Your task to perform on an android device: What's on my calendar today? Image 0: 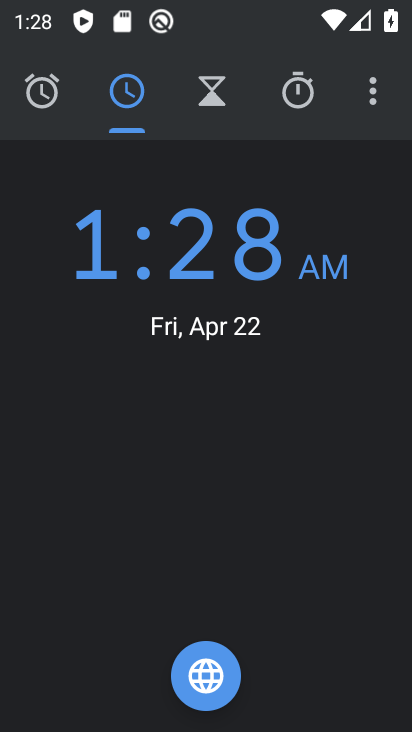
Step 0: press home button
Your task to perform on an android device: What's on my calendar today? Image 1: 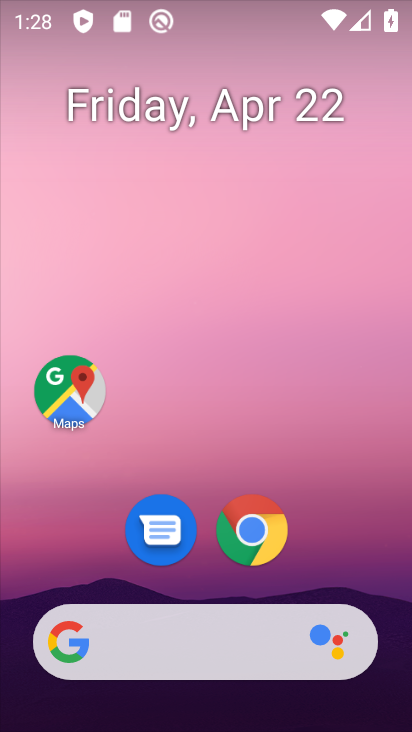
Step 1: drag from (199, 629) to (200, 127)
Your task to perform on an android device: What's on my calendar today? Image 2: 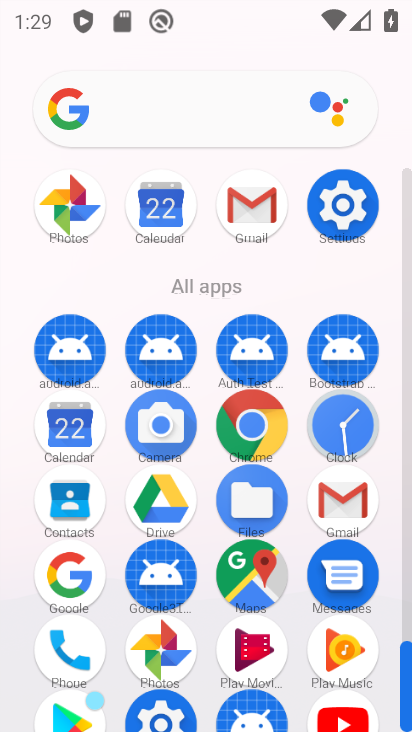
Step 2: click (67, 428)
Your task to perform on an android device: What's on my calendar today? Image 3: 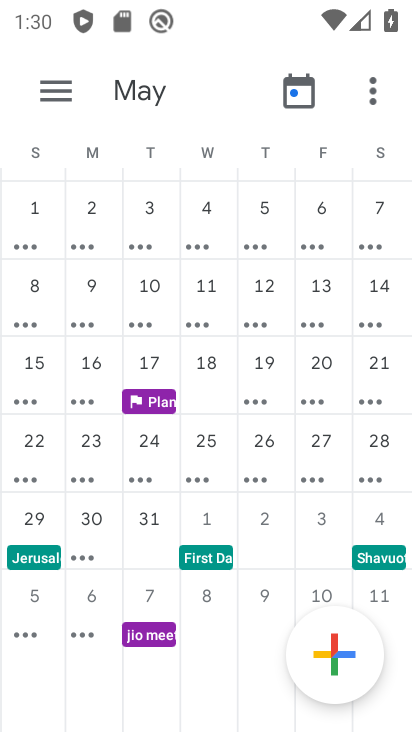
Step 3: drag from (21, 417) to (299, 562)
Your task to perform on an android device: What's on my calendar today? Image 4: 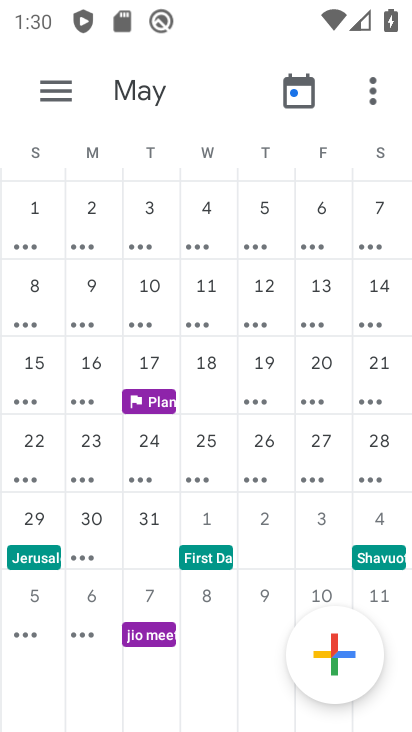
Step 4: click (56, 86)
Your task to perform on an android device: What's on my calendar today? Image 5: 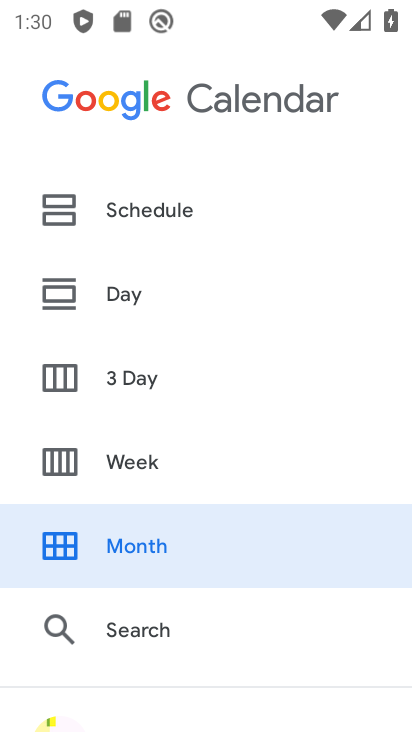
Step 5: click (146, 215)
Your task to perform on an android device: What's on my calendar today? Image 6: 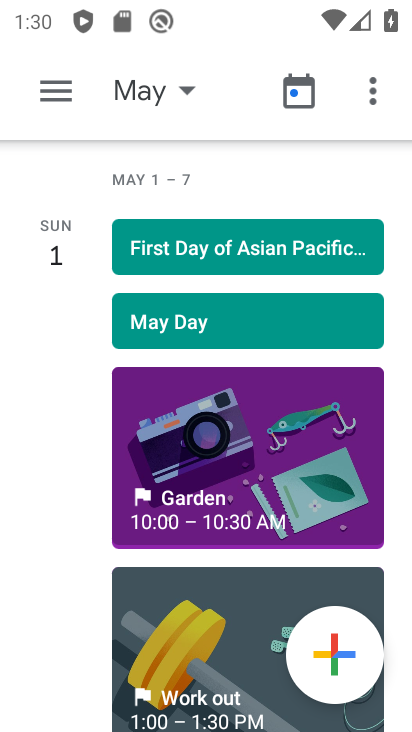
Step 6: click (121, 98)
Your task to perform on an android device: What's on my calendar today? Image 7: 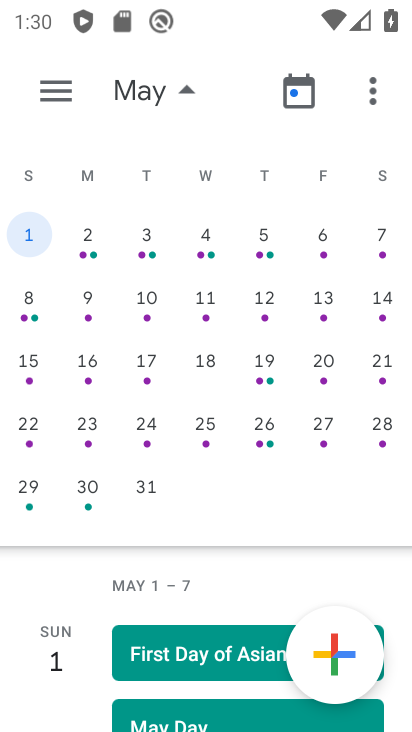
Step 7: drag from (41, 316) to (410, 330)
Your task to perform on an android device: What's on my calendar today? Image 8: 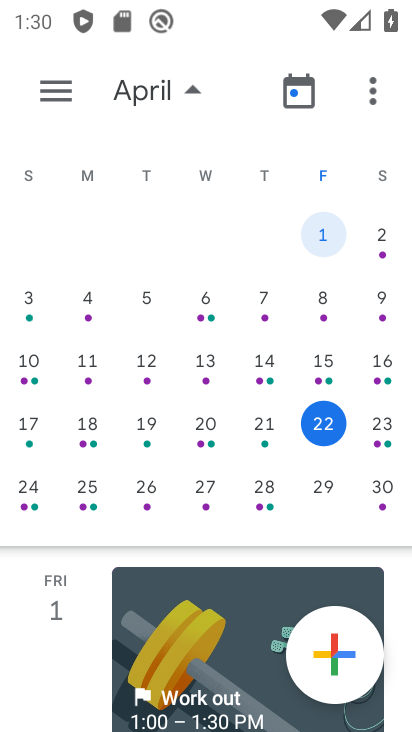
Step 8: click (327, 421)
Your task to perform on an android device: What's on my calendar today? Image 9: 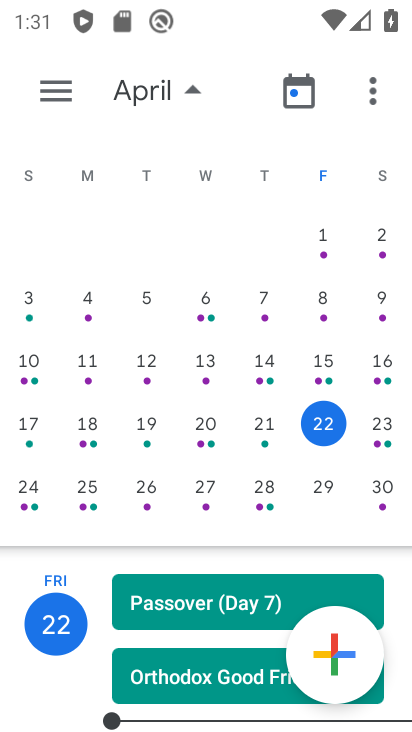
Step 9: task complete